Your task to perform on an android device: clear all cookies in the chrome app Image 0: 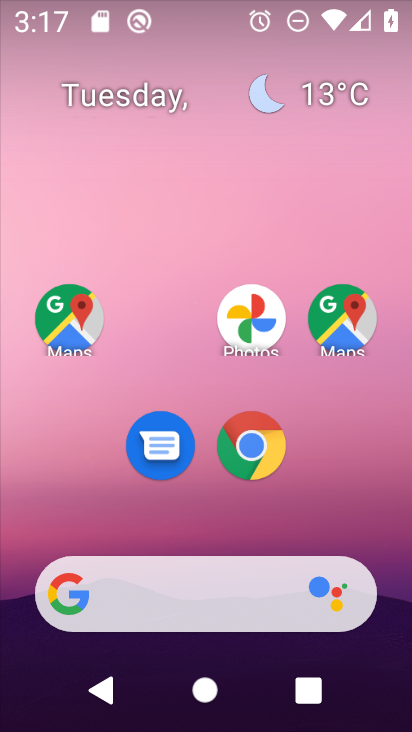
Step 0: drag from (397, 556) to (398, 229)
Your task to perform on an android device: clear all cookies in the chrome app Image 1: 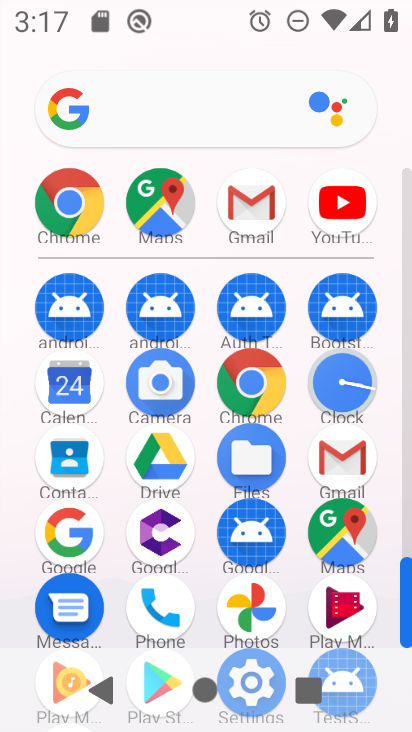
Step 1: click (254, 393)
Your task to perform on an android device: clear all cookies in the chrome app Image 2: 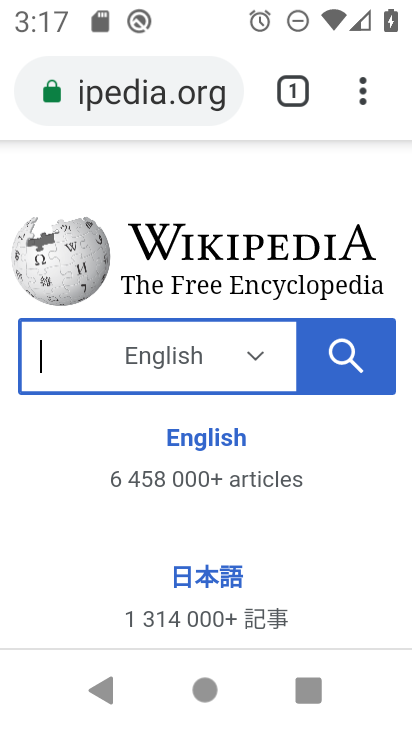
Step 2: click (363, 99)
Your task to perform on an android device: clear all cookies in the chrome app Image 3: 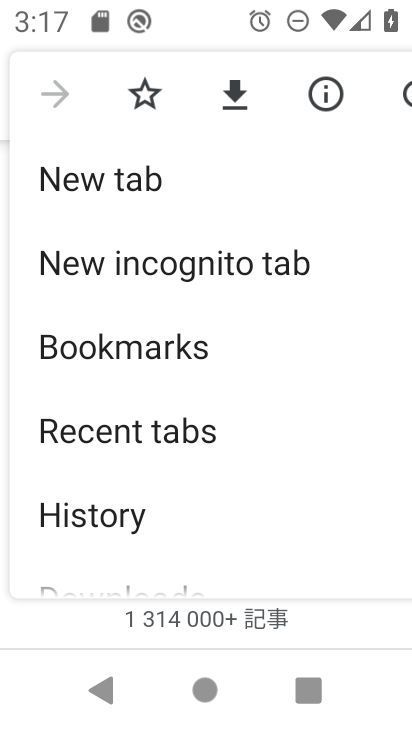
Step 3: drag from (322, 377) to (334, 311)
Your task to perform on an android device: clear all cookies in the chrome app Image 4: 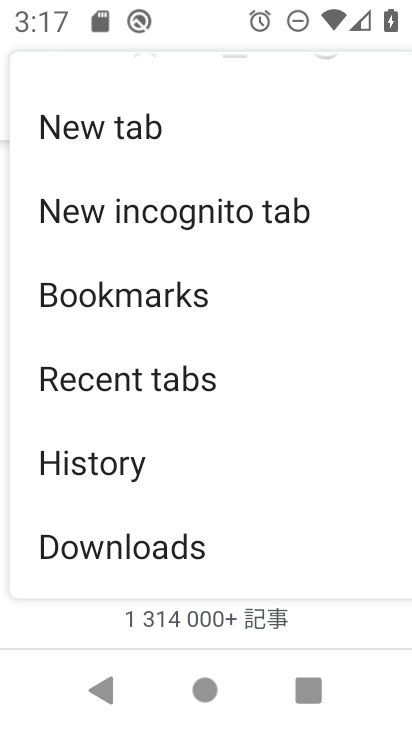
Step 4: drag from (337, 473) to (349, 375)
Your task to perform on an android device: clear all cookies in the chrome app Image 5: 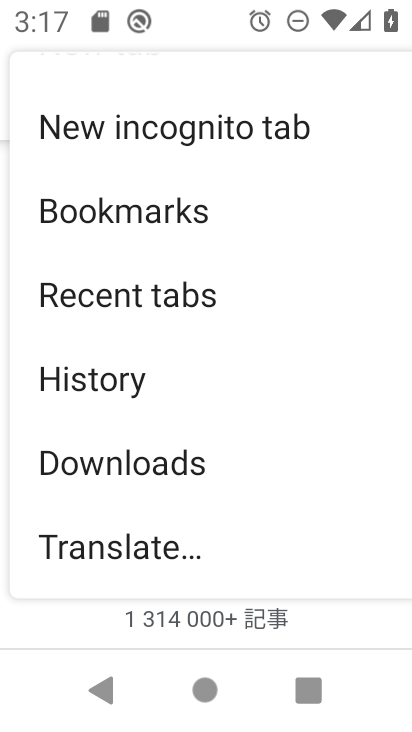
Step 5: drag from (329, 505) to (336, 409)
Your task to perform on an android device: clear all cookies in the chrome app Image 6: 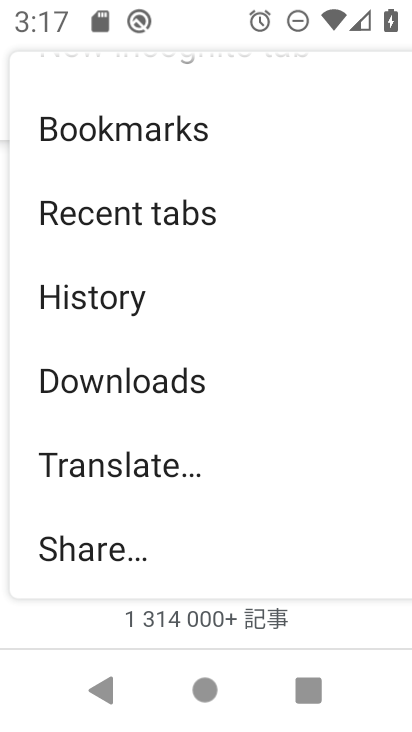
Step 6: drag from (327, 502) to (331, 384)
Your task to perform on an android device: clear all cookies in the chrome app Image 7: 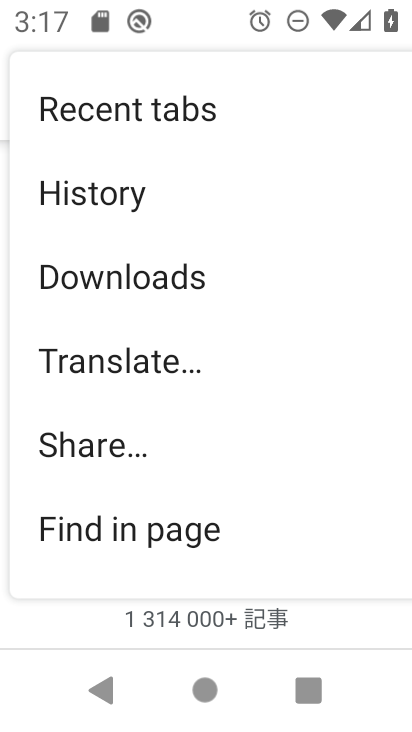
Step 7: drag from (319, 485) to (324, 375)
Your task to perform on an android device: clear all cookies in the chrome app Image 8: 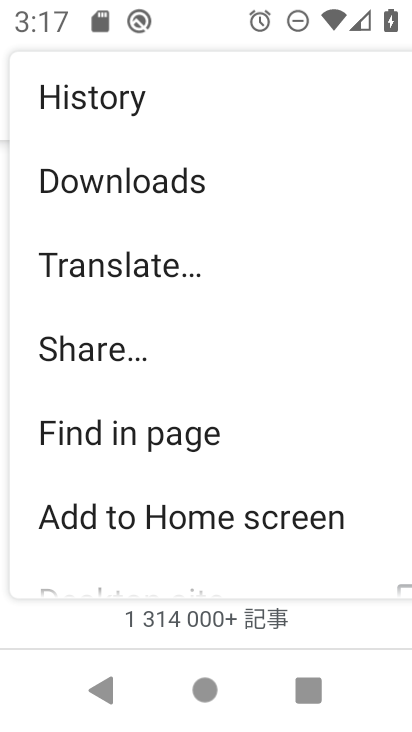
Step 8: drag from (331, 548) to (332, 408)
Your task to perform on an android device: clear all cookies in the chrome app Image 9: 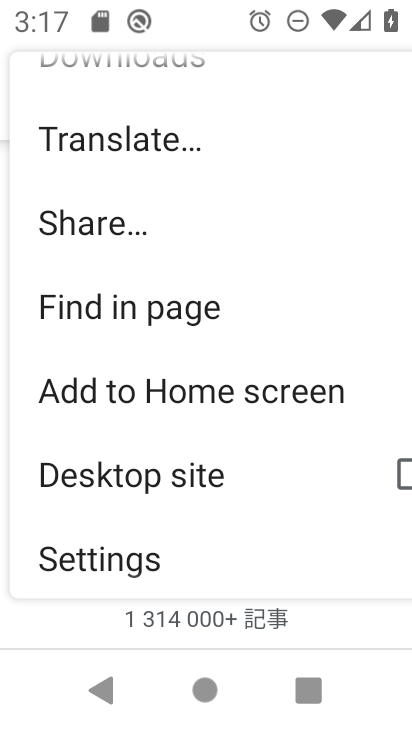
Step 9: drag from (327, 518) to (332, 428)
Your task to perform on an android device: clear all cookies in the chrome app Image 10: 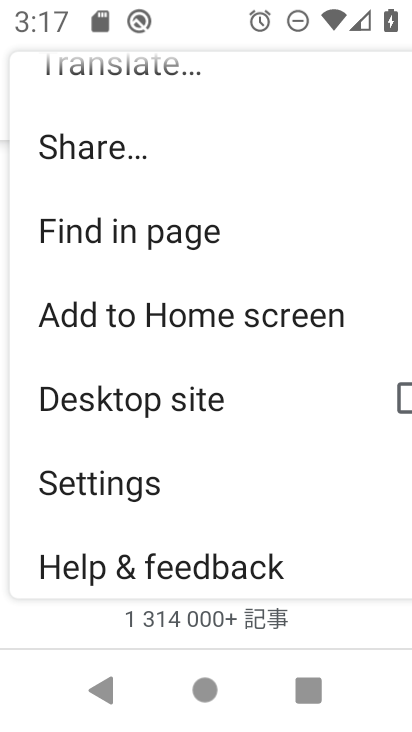
Step 10: click (182, 505)
Your task to perform on an android device: clear all cookies in the chrome app Image 11: 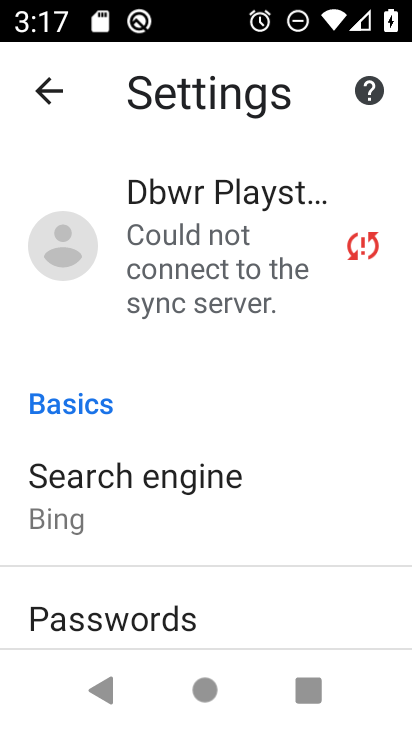
Step 11: drag from (236, 556) to (252, 470)
Your task to perform on an android device: clear all cookies in the chrome app Image 12: 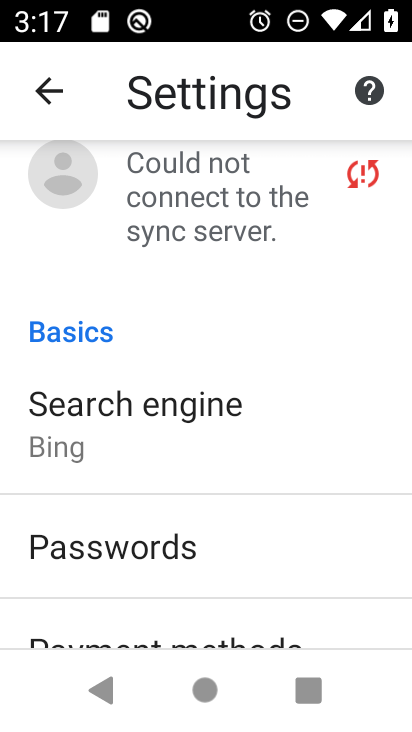
Step 12: drag from (263, 587) to (289, 509)
Your task to perform on an android device: clear all cookies in the chrome app Image 13: 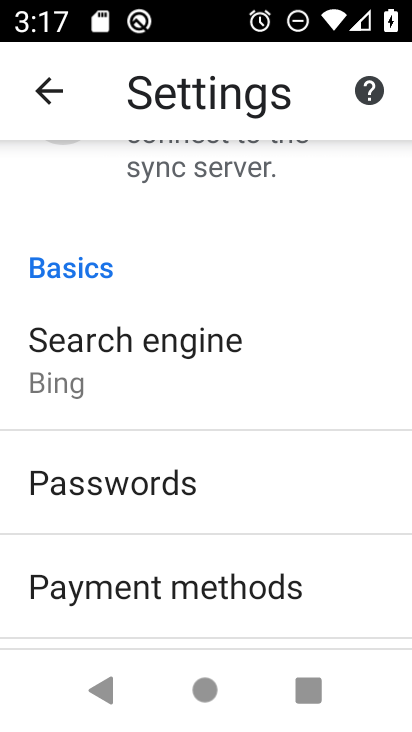
Step 13: drag from (333, 589) to (337, 507)
Your task to perform on an android device: clear all cookies in the chrome app Image 14: 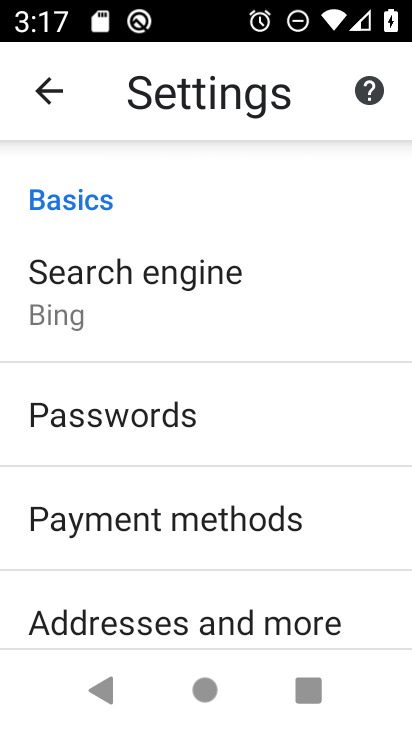
Step 14: drag from (314, 593) to (327, 460)
Your task to perform on an android device: clear all cookies in the chrome app Image 15: 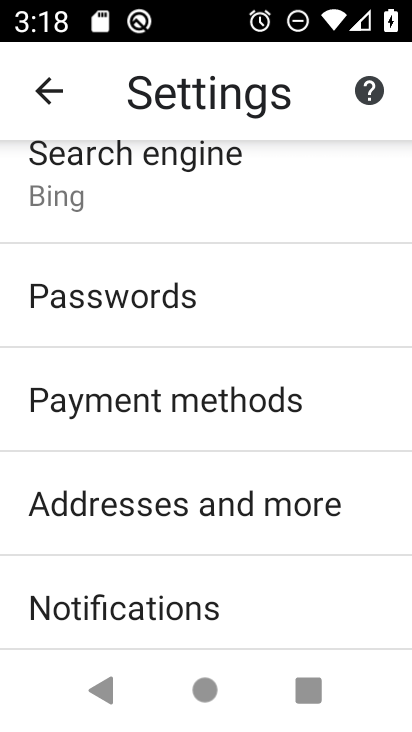
Step 15: drag from (297, 585) to (314, 484)
Your task to perform on an android device: clear all cookies in the chrome app Image 16: 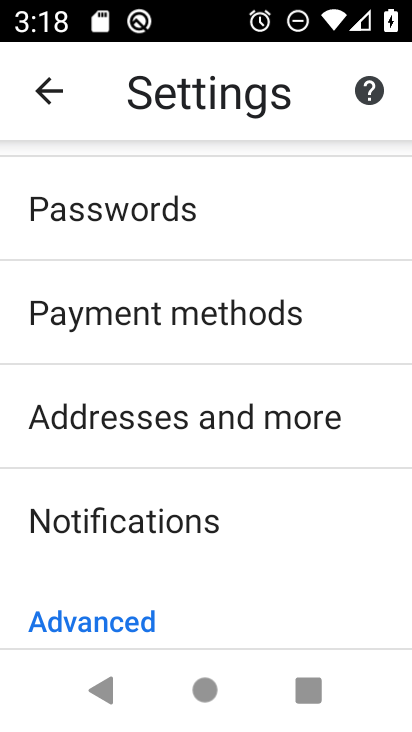
Step 16: drag from (286, 598) to (286, 504)
Your task to perform on an android device: clear all cookies in the chrome app Image 17: 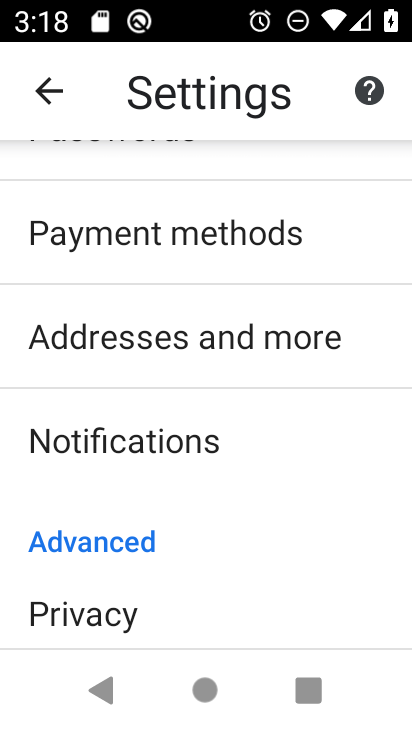
Step 17: drag from (278, 595) to (304, 486)
Your task to perform on an android device: clear all cookies in the chrome app Image 18: 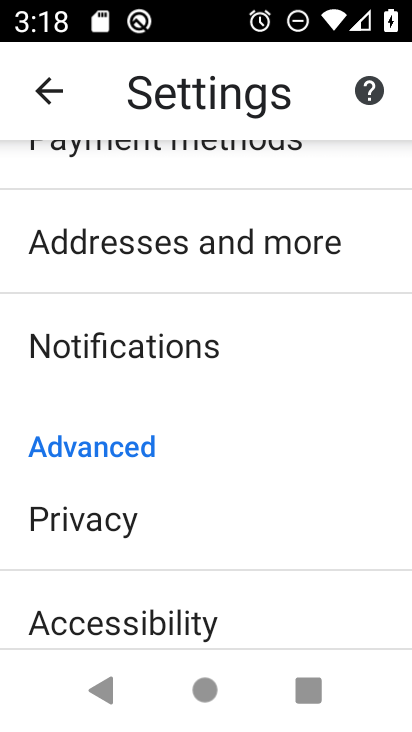
Step 18: drag from (292, 603) to (301, 451)
Your task to perform on an android device: clear all cookies in the chrome app Image 19: 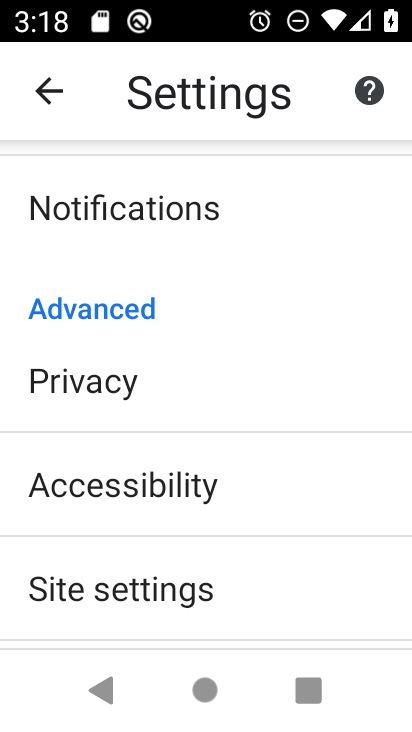
Step 19: drag from (283, 606) to (285, 478)
Your task to perform on an android device: clear all cookies in the chrome app Image 20: 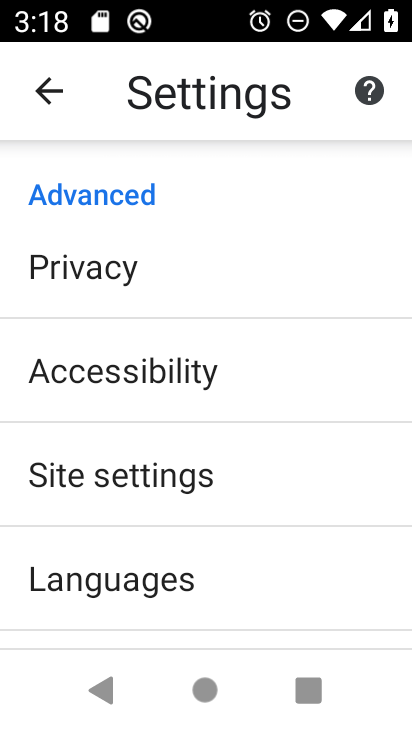
Step 20: click (157, 282)
Your task to perform on an android device: clear all cookies in the chrome app Image 21: 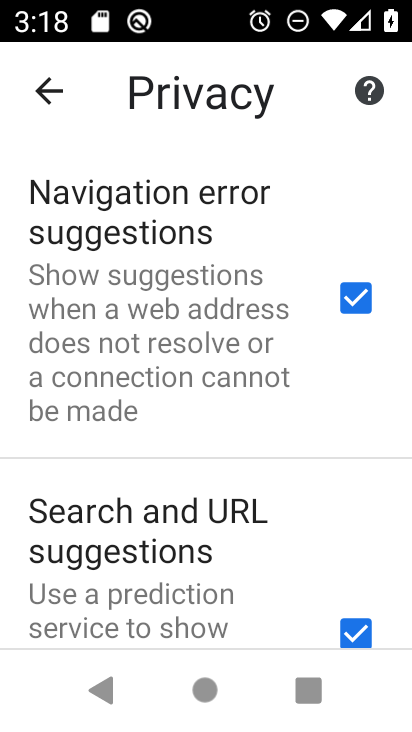
Step 21: drag from (265, 554) to (279, 453)
Your task to perform on an android device: clear all cookies in the chrome app Image 22: 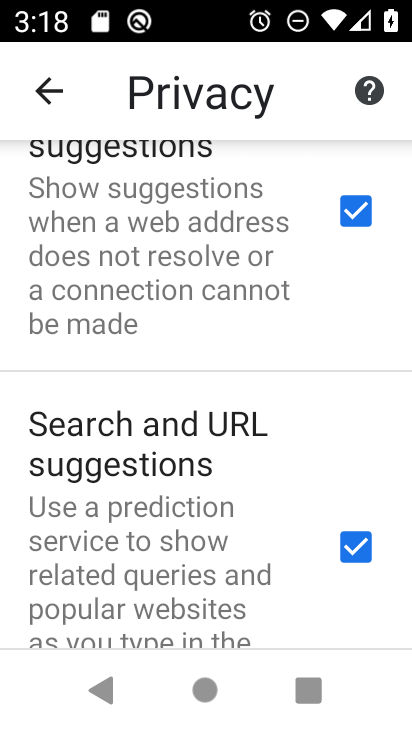
Step 22: drag from (264, 591) to (266, 465)
Your task to perform on an android device: clear all cookies in the chrome app Image 23: 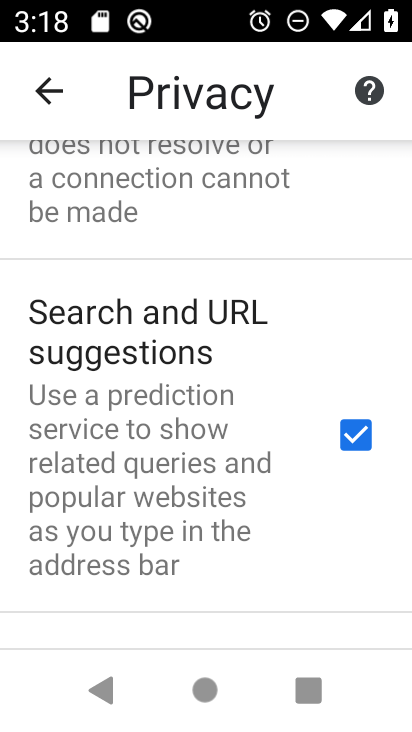
Step 23: drag from (266, 590) to (281, 468)
Your task to perform on an android device: clear all cookies in the chrome app Image 24: 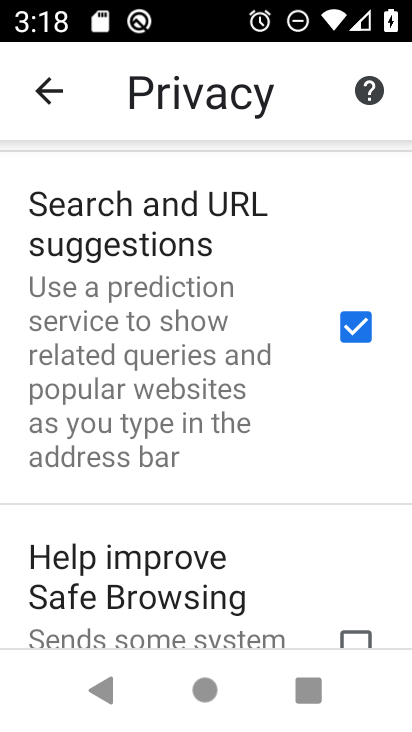
Step 24: drag from (269, 591) to (264, 439)
Your task to perform on an android device: clear all cookies in the chrome app Image 25: 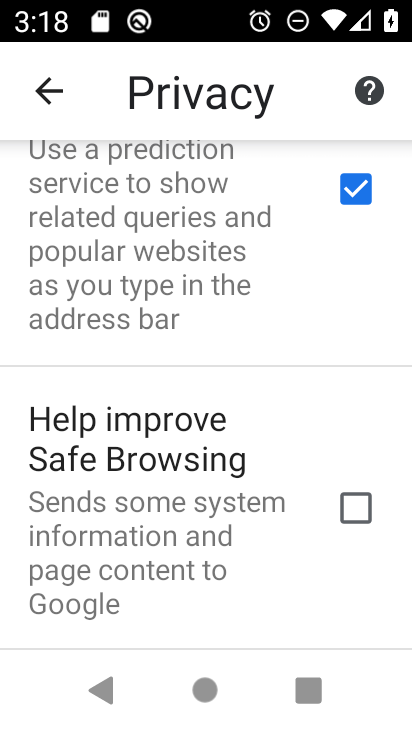
Step 25: drag from (264, 605) to (263, 427)
Your task to perform on an android device: clear all cookies in the chrome app Image 26: 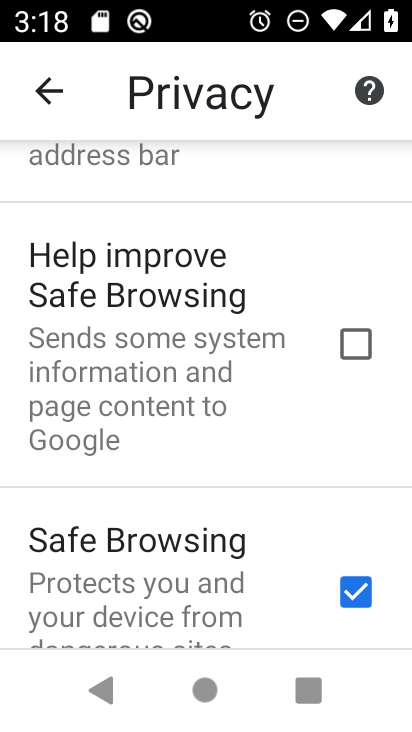
Step 26: drag from (265, 596) to (283, 438)
Your task to perform on an android device: clear all cookies in the chrome app Image 27: 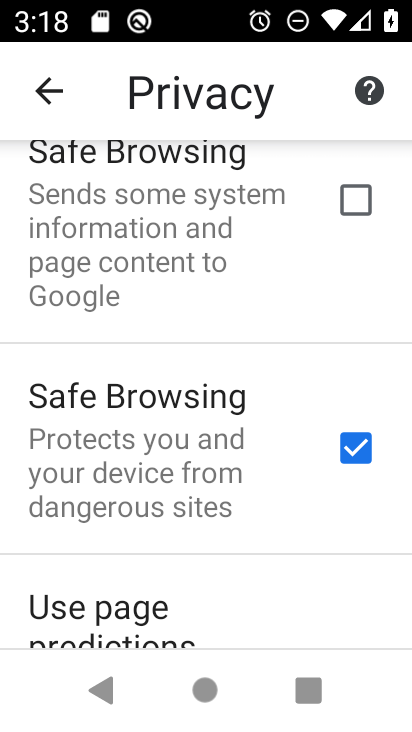
Step 27: drag from (264, 586) to (275, 426)
Your task to perform on an android device: clear all cookies in the chrome app Image 28: 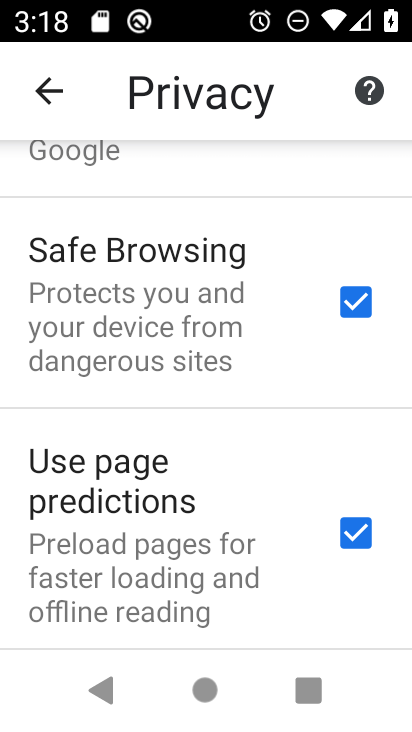
Step 28: drag from (260, 616) to (265, 470)
Your task to perform on an android device: clear all cookies in the chrome app Image 29: 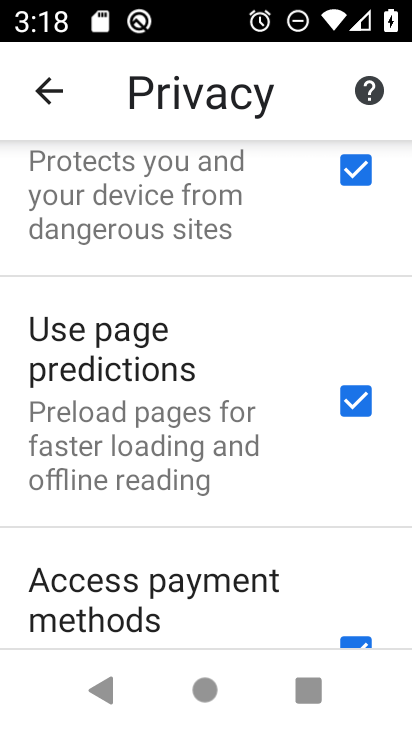
Step 29: drag from (257, 620) to (261, 485)
Your task to perform on an android device: clear all cookies in the chrome app Image 30: 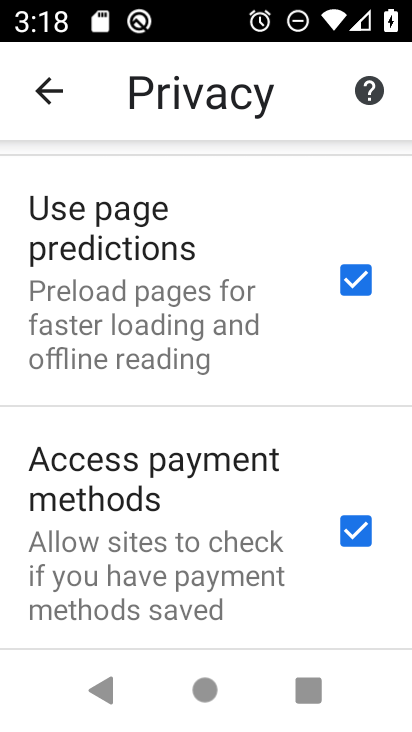
Step 30: drag from (252, 618) to (262, 483)
Your task to perform on an android device: clear all cookies in the chrome app Image 31: 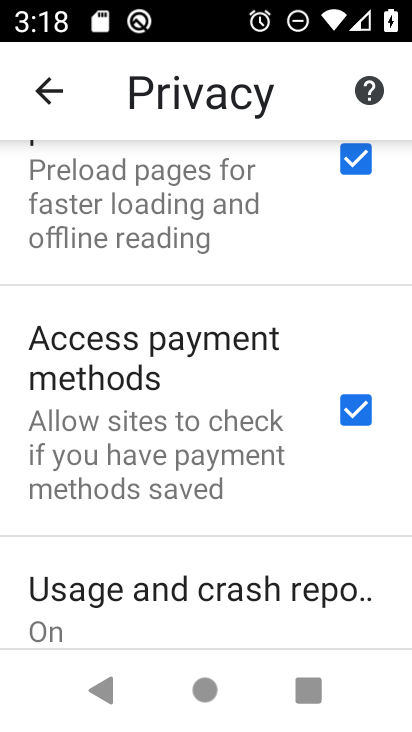
Step 31: drag from (273, 514) to (277, 412)
Your task to perform on an android device: clear all cookies in the chrome app Image 32: 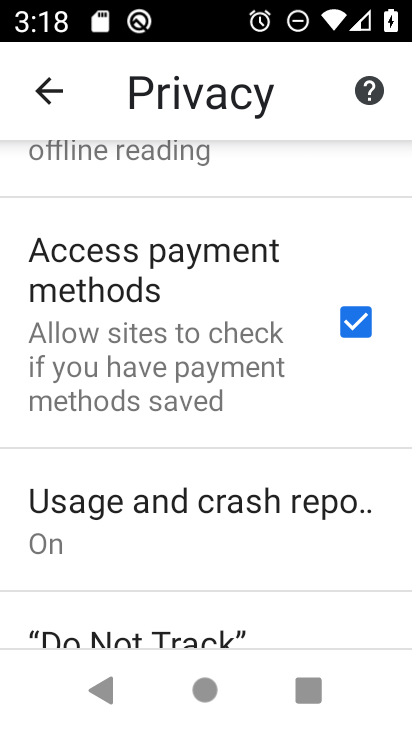
Step 32: drag from (276, 579) to (286, 381)
Your task to perform on an android device: clear all cookies in the chrome app Image 33: 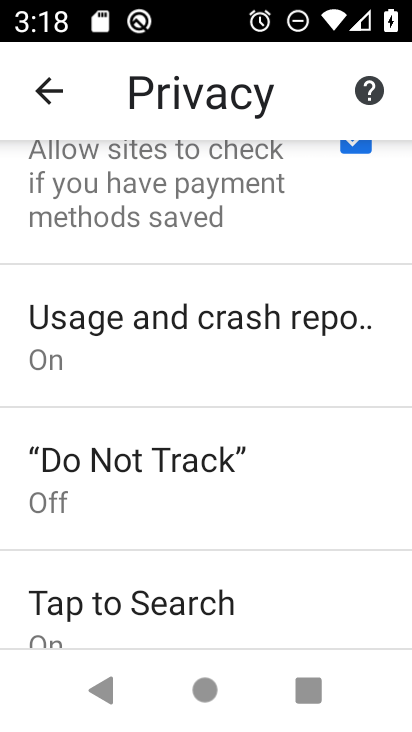
Step 33: drag from (255, 592) to (259, 371)
Your task to perform on an android device: clear all cookies in the chrome app Image 34: 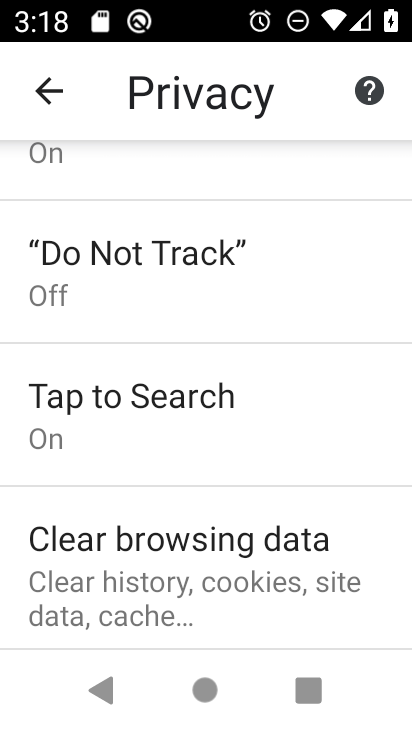
Step 34: click (237, 556)
Your task to perform on an android device: clear all cookies in the chrome app Image 35: 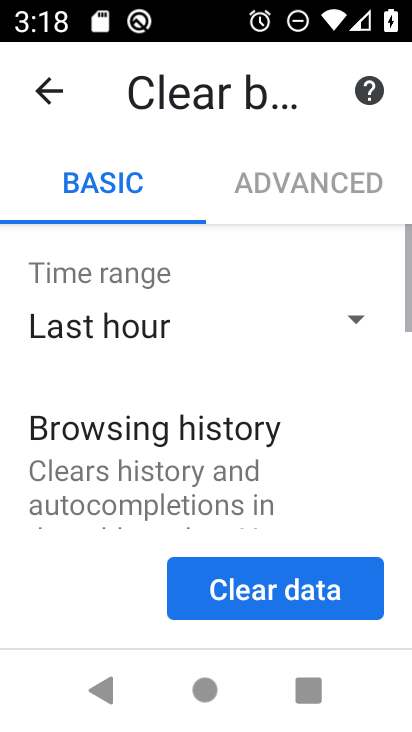
Step 35: click (242, 585)
Your task to perform on an android device: clear all cookies in the chrome app Image 36: 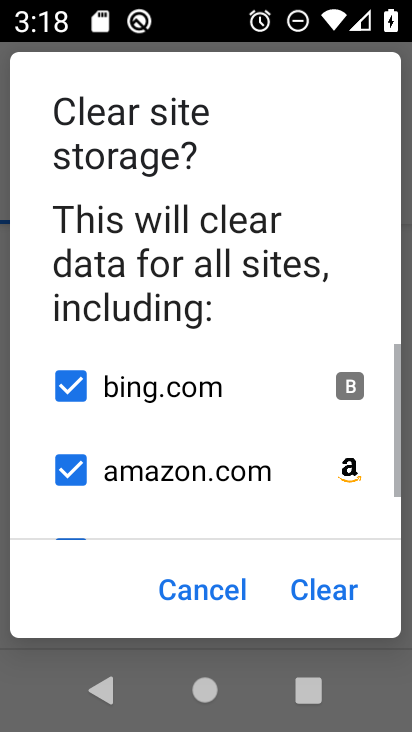
Step 36: click (282, 589)
Your task to perform on an android device: clear all cookies in the chrome app Image 37: 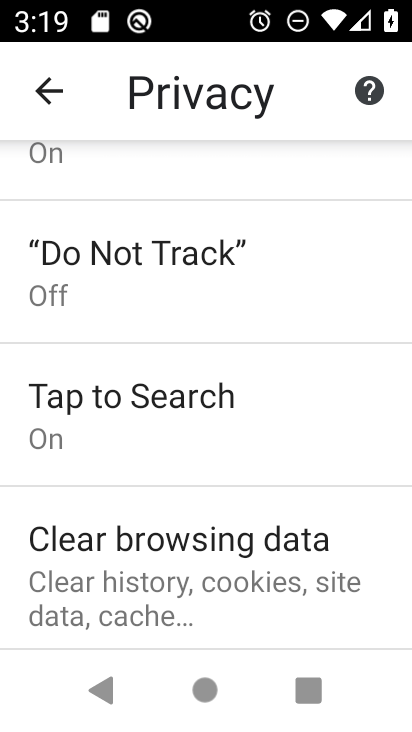
Step 37: task complete